Your task to perform on an android device: Is it going to rain tomorrow? Image 0: 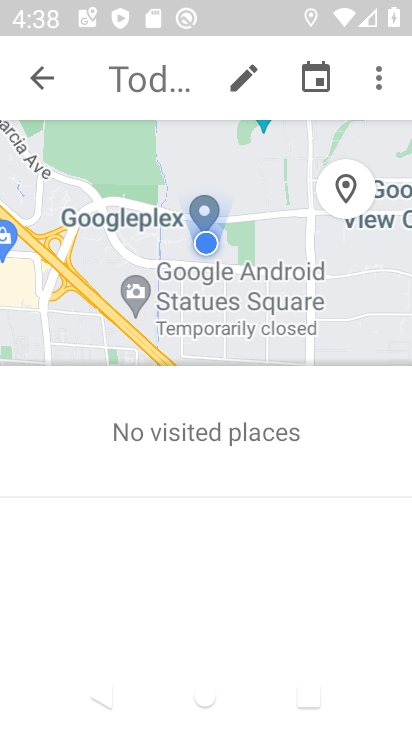
Step 0: press home button
Your task to perform on an android device: Is it going to rain tomorrow? Image 1: 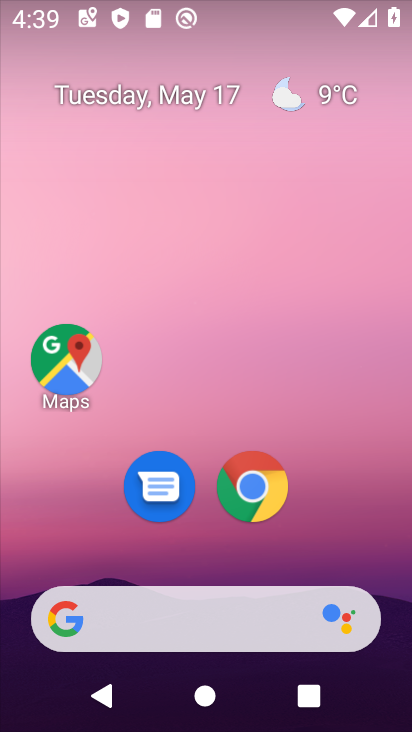
Step 1: click (246, 467)
Your task to perform on an android device: Is it going to rain tomorrow? Image 2: 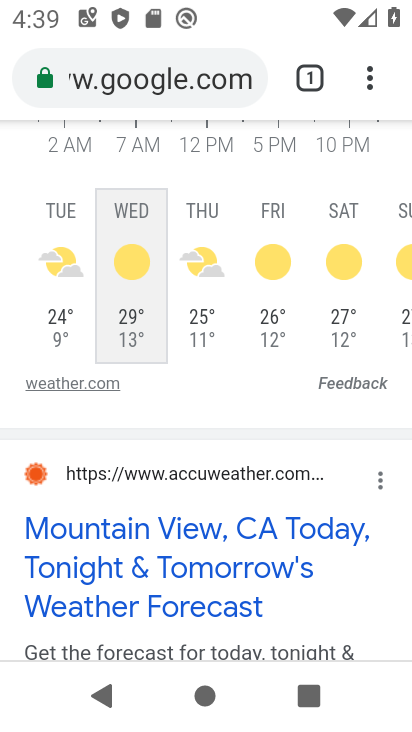
Step 2: click (185, 74)
Your task to perform on an android device: Is it going to rain tomorrow? Image 3: 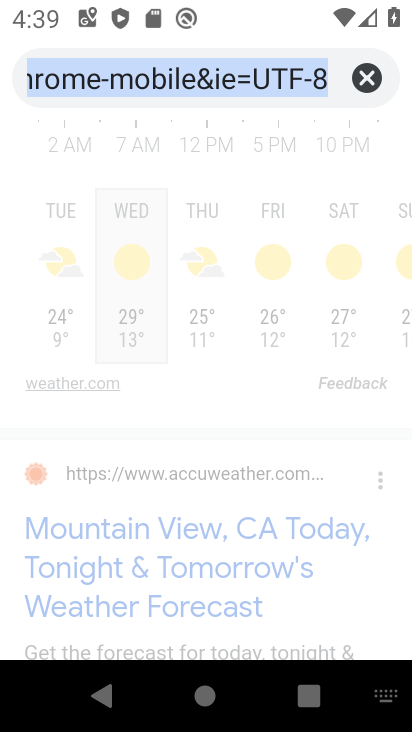
Step 3: type "Is it going to rain tomorrow?"
Your task to perform on an android device: Is it going to rain tomorrow? Image 4: 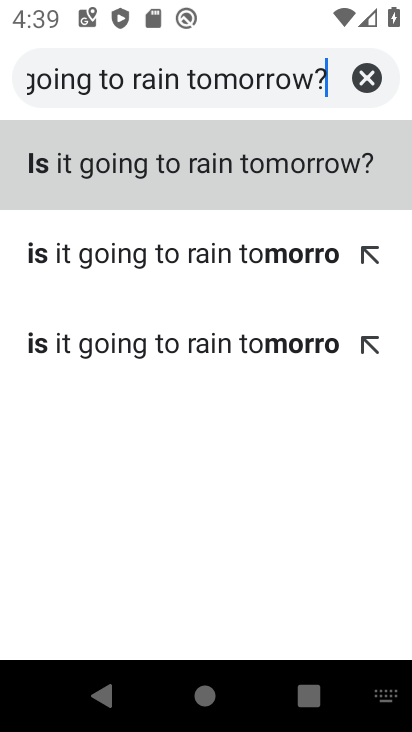
Step 4: click (250, 165)
Your task to perform on an android device: Is it going to rain tomorrow? Image 5: 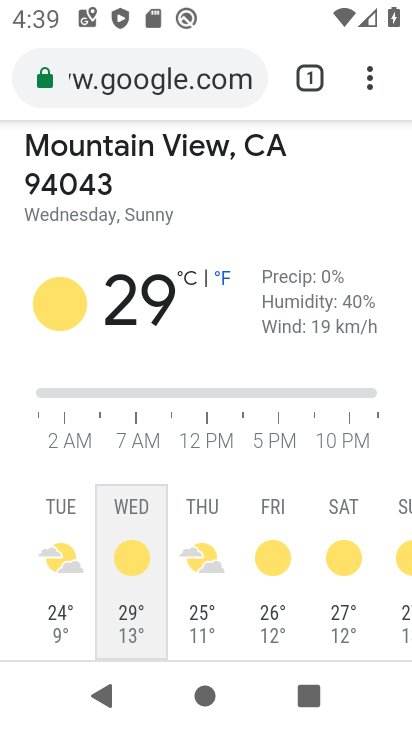
Step 5: task complete